Your task to perform on an android device: Open Chrome and go to the settings page Image 0: 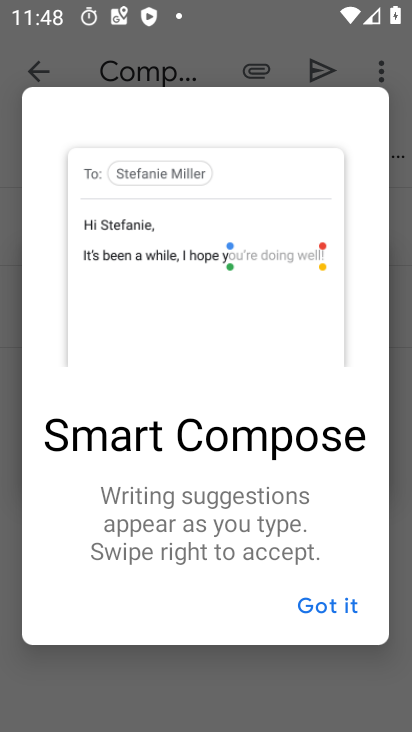
Step 0: press home button
Your task to perform on an android device: Open Chrome and go to the settings page Image 1: 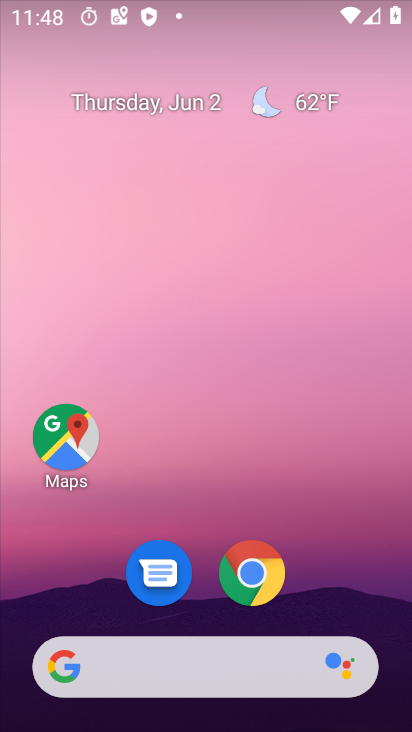
Step 1: drag from (307, 695) to (262, 17)
Your task to perform on an android device: Open Chrome and go to the settings page Image 2: 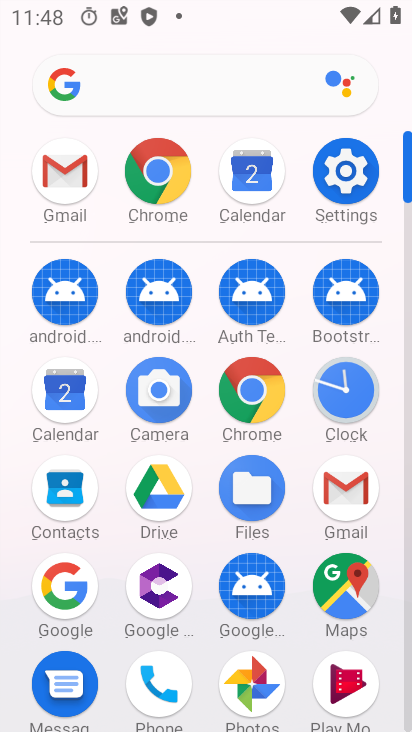
Step 2: click (265, 398)
Your task to perform on an android device: Open Chrome and go to the settings page Image 3: 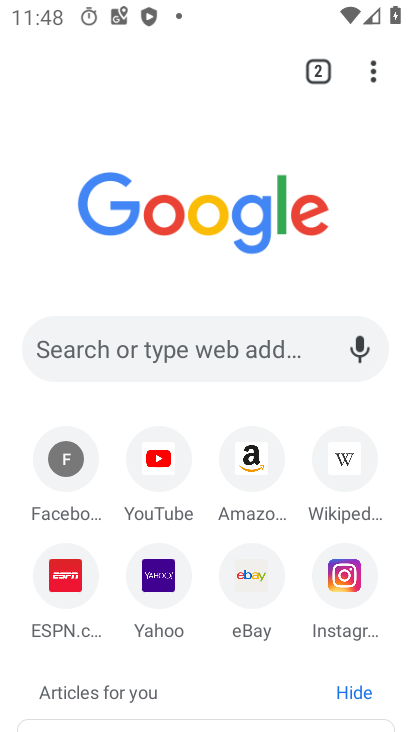
Step 3: task complete